Your task to perform on an android device: Show me popular videos on Youtube Image 0: 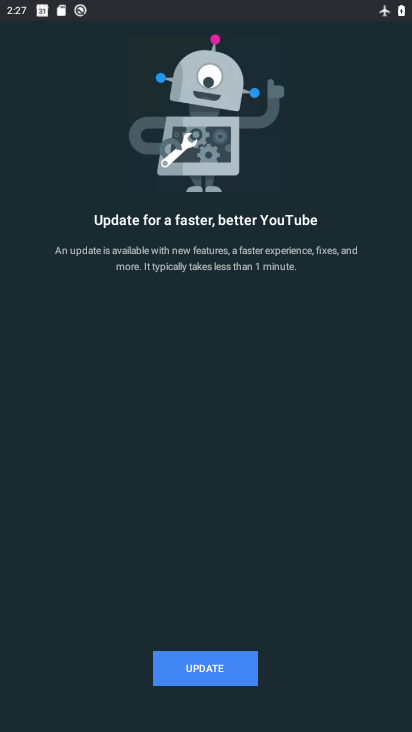
Step 0: click (236, 664)
Your task to perform on an android device: Show me popular videos on Youtube Image 1: 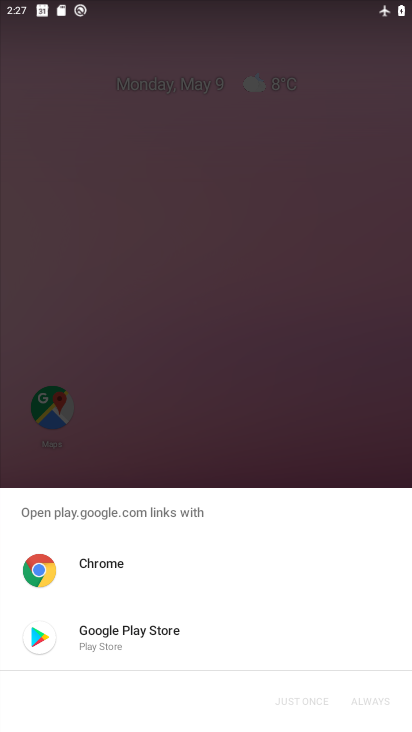
Step 1: drag from (157, 633) to (246, 633)
Your task to perform on an android device: Show me popular videos on Youtube Image 2: 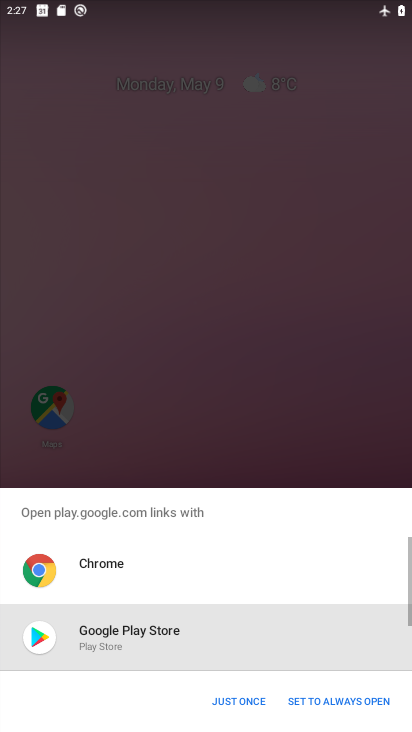
Step 2: click (243, 700)
Your task to perform on an android device: Show me popular videos on Youtube Image 3: 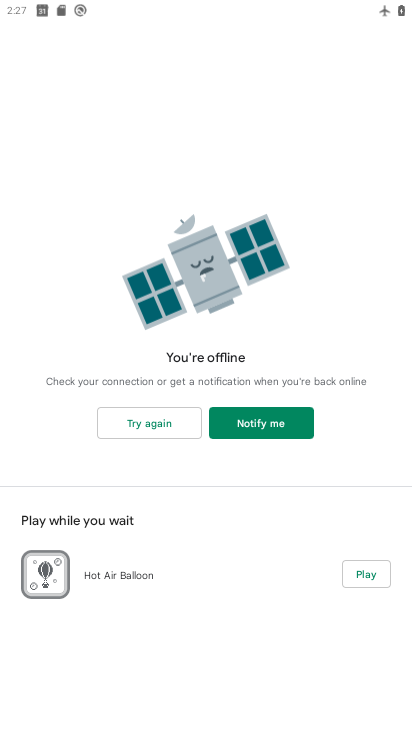
Step 3: task complete